Your task to perform on an android device: turn on data saver in the chrome app Image 0: 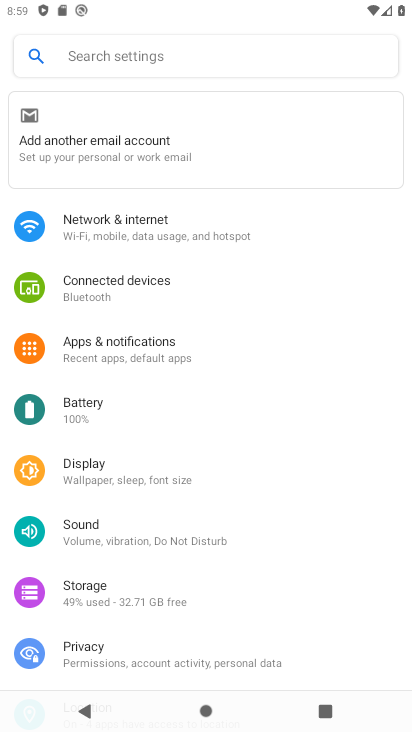
Step 0: press home button
Your task to perform on an android device: turn on data saver in the chrome app Image 1: 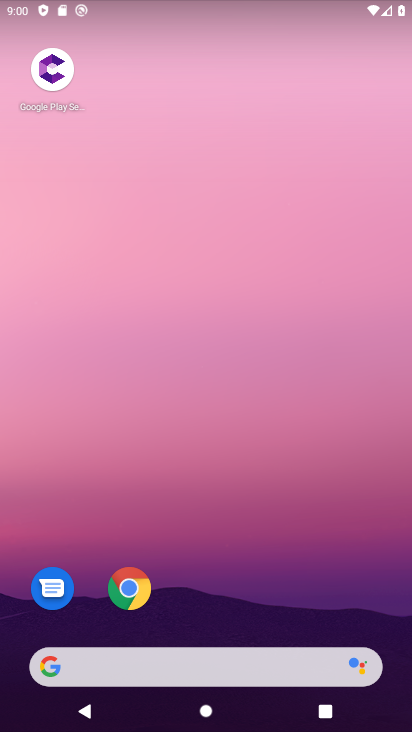
Step 1: drag from (263, 451) to (199, 74)
Your task to perform on an android device: turn on data saver in the chrome app Image 2: 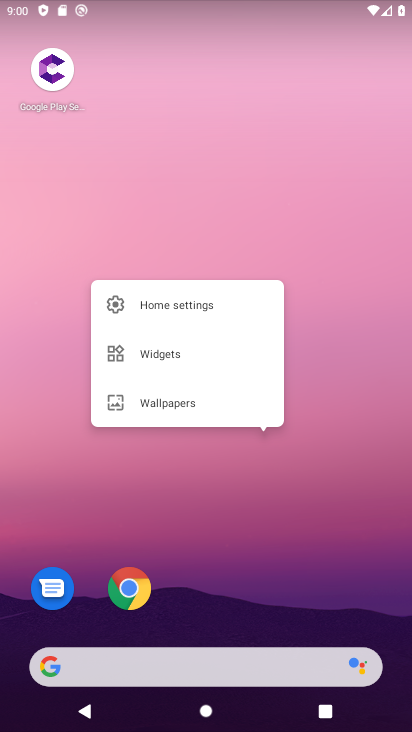
Step 2: click (358, 482)
Your task to perform on an android device: turn on data saver in the chrome app Image 3: 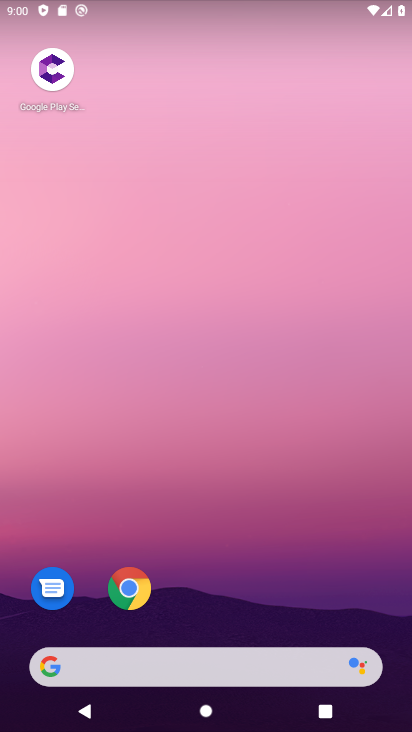
Step 3: click (325, 527)
Your task to perform on an android device: turn on data saver in the chrome app Image 4: 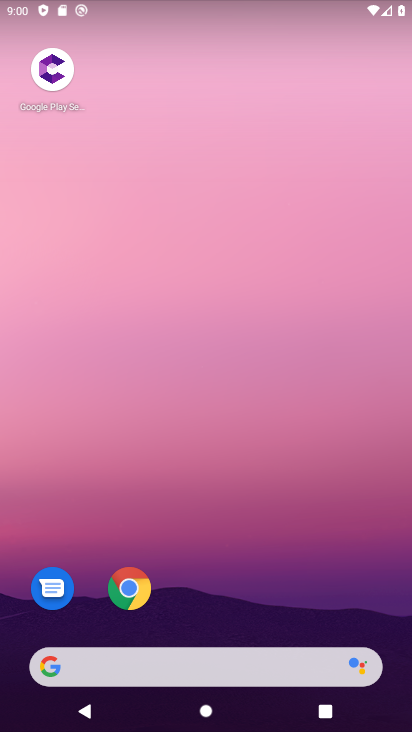
Step 4: drag from (322, 578) to (217, 28)
Your task to perform on an android device: turn on data saver in the chrome app Image 5: 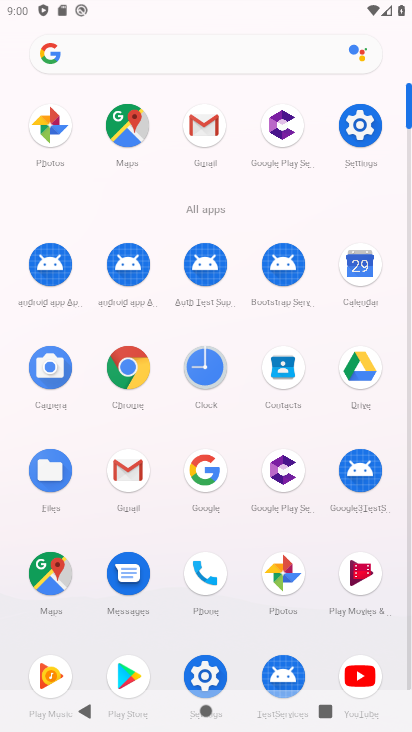
Step 5: click (132, 365)
Your task to perform on an android device: turn on data saver in the chrome app Image 6: 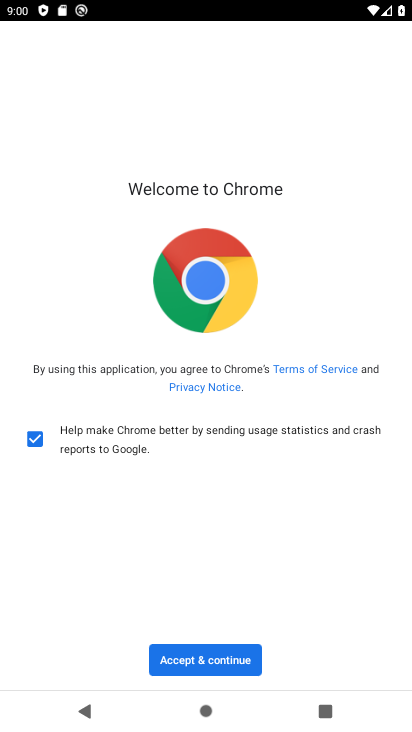
Step 6: click (224, 666)
Your task to perform on an android device: turn on data saver in the chrome app Image 7: 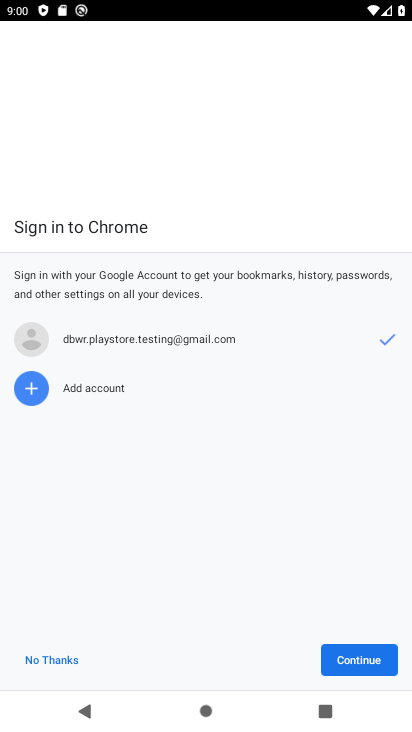
Step 7: click (388, 665)
Your task to perform on an android device: turn on data saver in the chrome app Image 8: 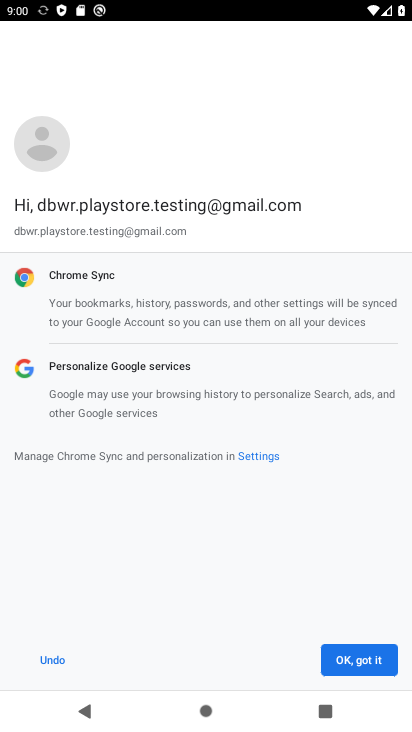
Step 8: click (383, 659)
Your task to perform on an android device: turn on data saver in the chrome app Image 9: 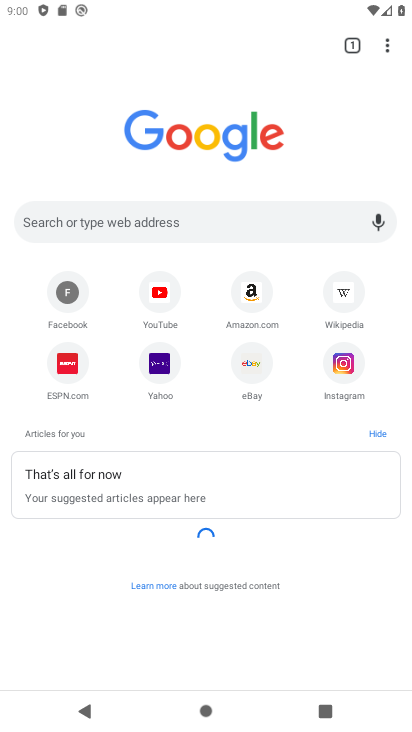
Step 9: drag from (390, 42) to (248, 386)
Your task to perform on an android device: turn on data saver in the chrome app Image 10: 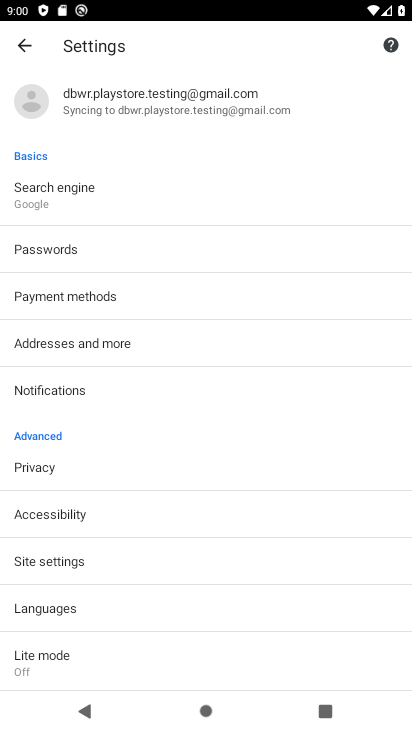
Step 10: drag from (245, 460) to (277, 4)
Your task to perform on an android device: turn on data saver in the chrome app Image 11: 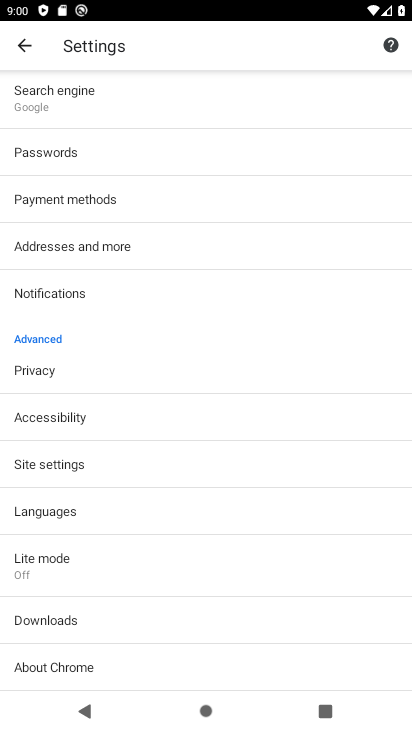
Step 11: click (107, 563)
Your task to perform on an android device: turn on data saver in the chrome app Image 12: 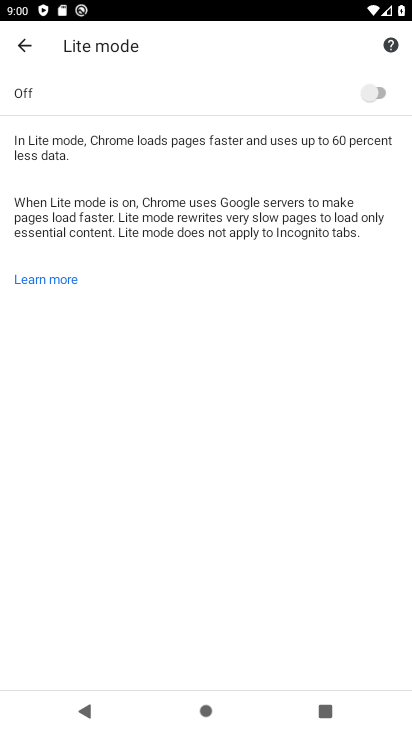
Step 12: click (378, 106)
Your task to perform on an android device: turn on data saver in the chrome app Image 13: 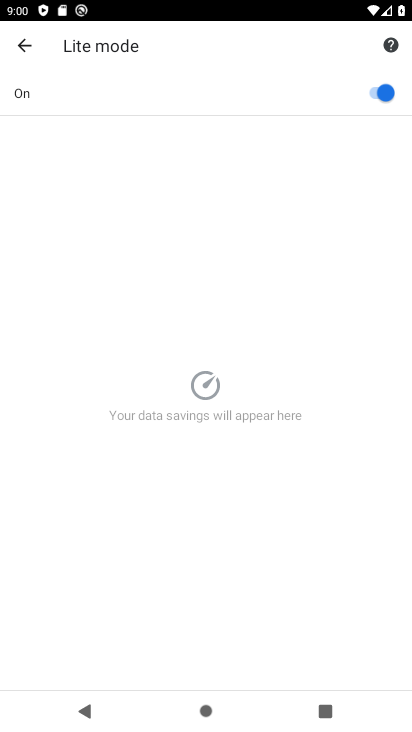
Step 13: task complete